Your task to perform on an android device: Open Yahoo.com Image 0: 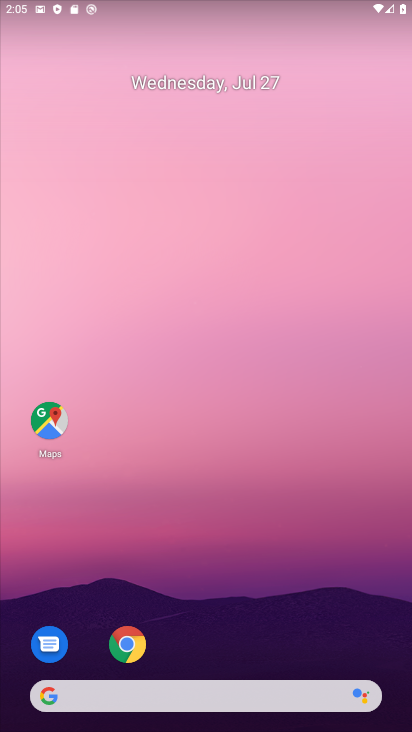
Step 0: click (135, 634)
Your task to perform on an android device: Open Yahoo.com Image 1: 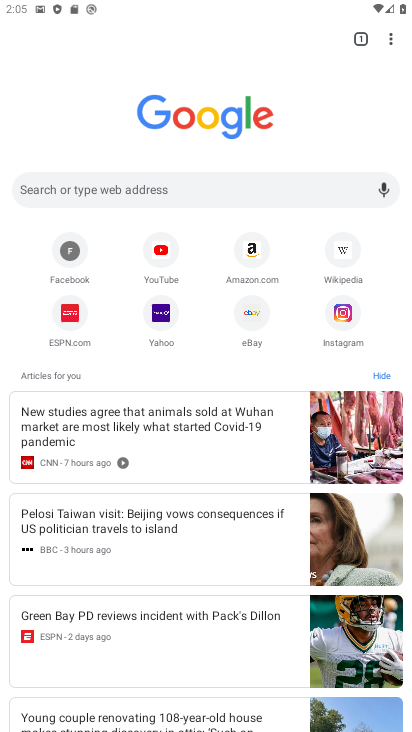
Step 1: click (161, 333)
Your task to perform on an android device: Open Yahoo.com Image 2: 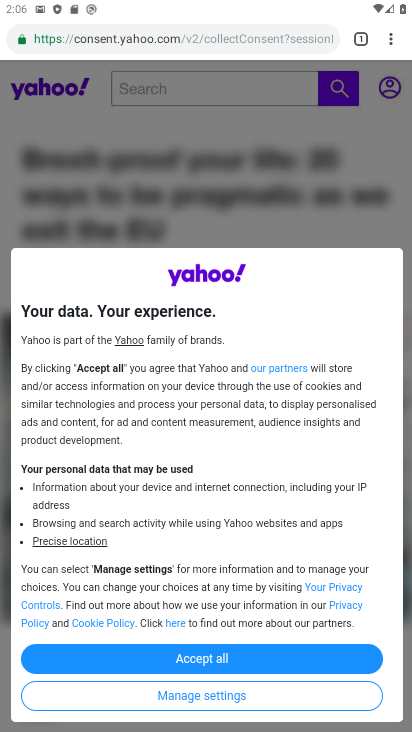
Step 2: task complete